Your task to perform on an android device: Search for duracell triple a on bestbuy, select the first entry, add it to the cart, then select checkout. Image 0: 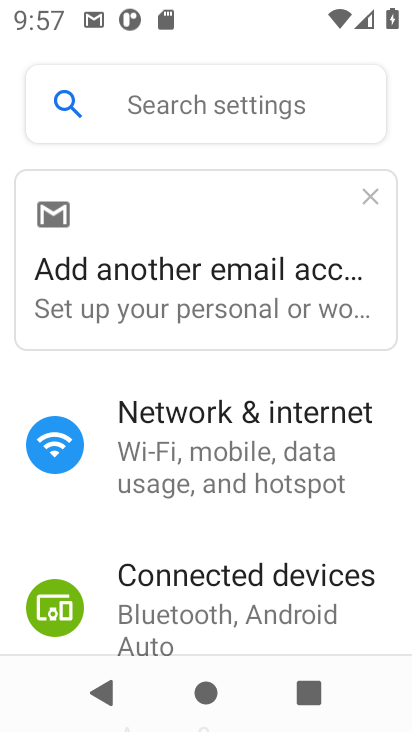
Step 0: press home button
Your task to perform on an android device: Search for duracell triple a on bestbuy, select the first entry, add it to the cart, then select checkout. Image 1: 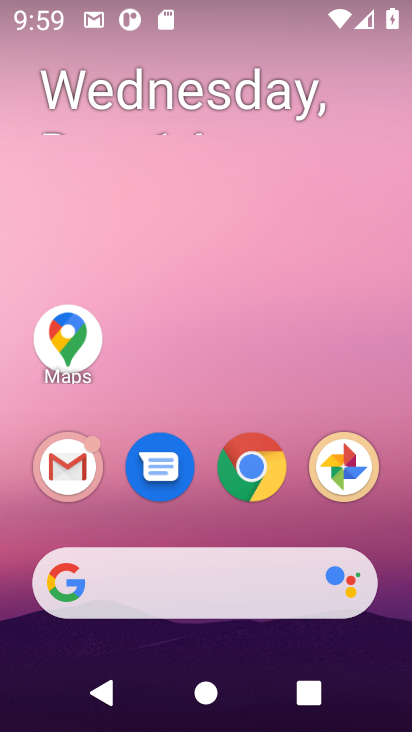
Step 1: task complete